Your task to perform on an android device: Show me the alarms in the clock app Image 0: 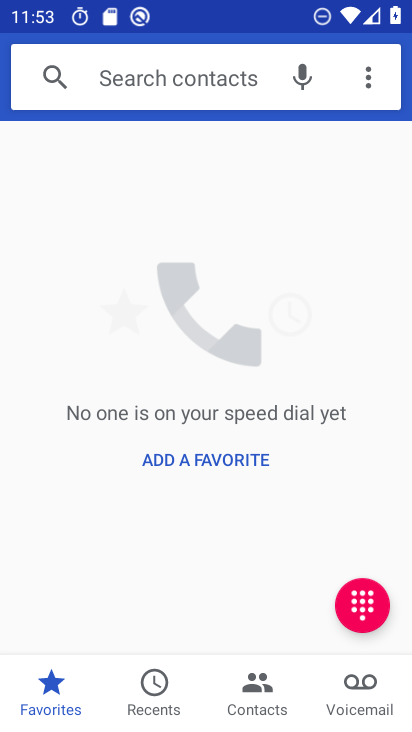
Step 0: press back button
Your task to perform on an android device: Show me the alarms in the clock app Image 1: 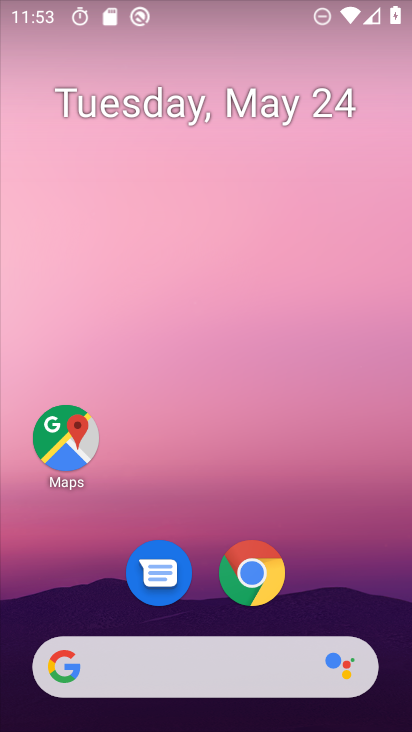
Step 1: drag from (328, 553) to (209, 17)
Your task to perform on an android device: Show me the alarms in the clock app Image 2: 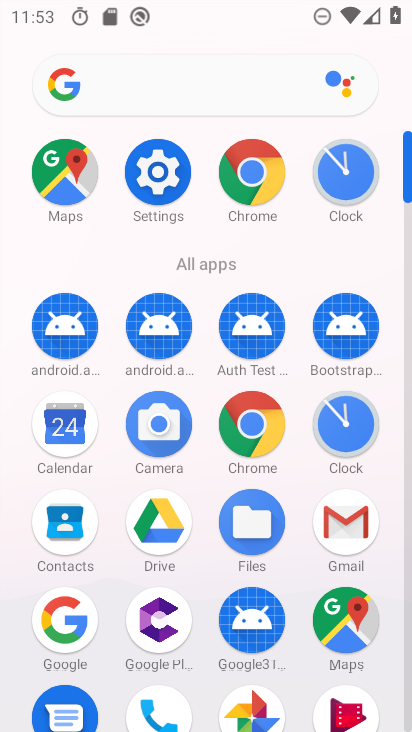
Step 2: click (346, 416)
Your task to perform on an android device: Show me the alarms in the clock app Image 3: 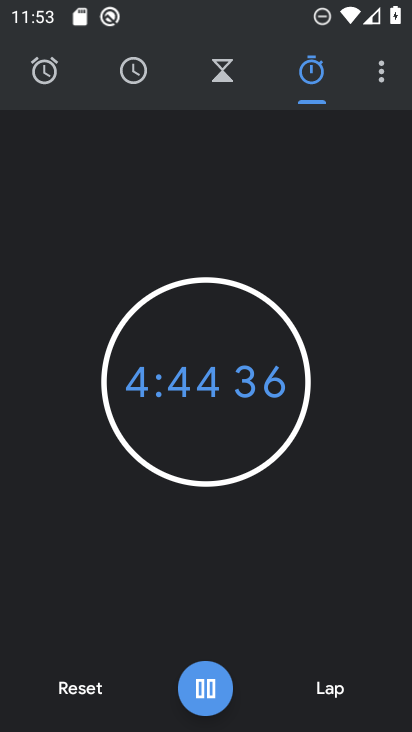
Step 3: click (29, 58)
Your task to perform on an android device: Show me the alarms in the clock app Image 4: 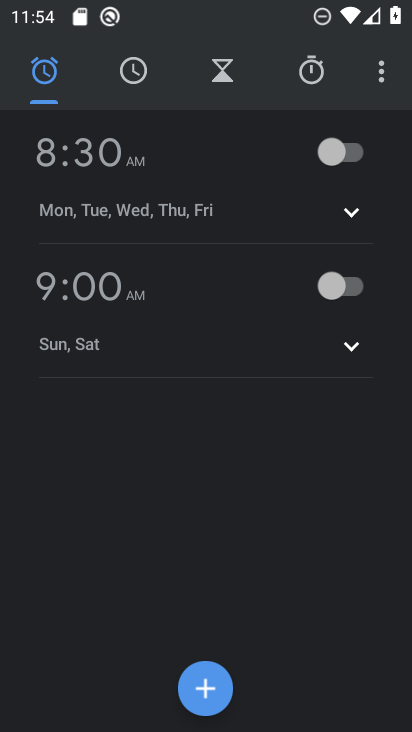
Step 4: task complete